Your task to perform on an android device: turn off javascript in the chrome app Image 0: 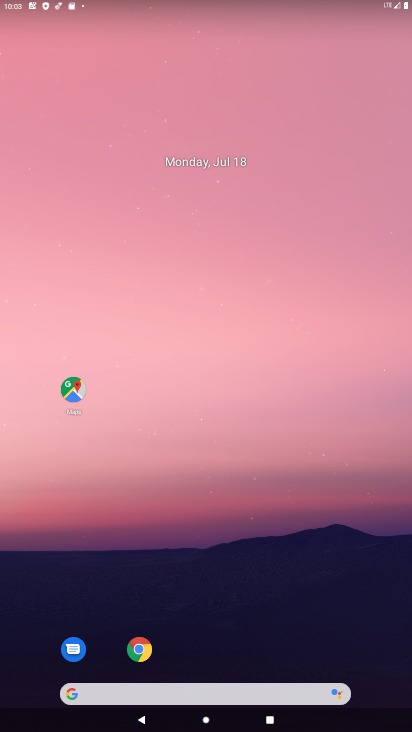
Step 0: click (141, 657)
Your task to perform on an android device: turn off javascript in the chrome app Image 1: 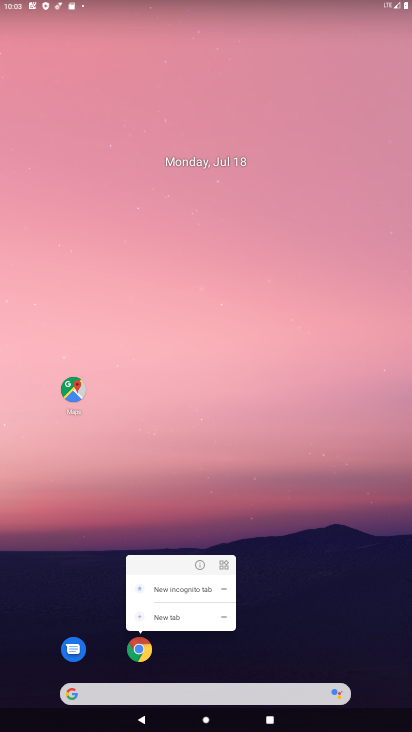
Step 1: click (144, 649)
Your task to perform on an android device: turn off javascript in the chrome app Image 2: 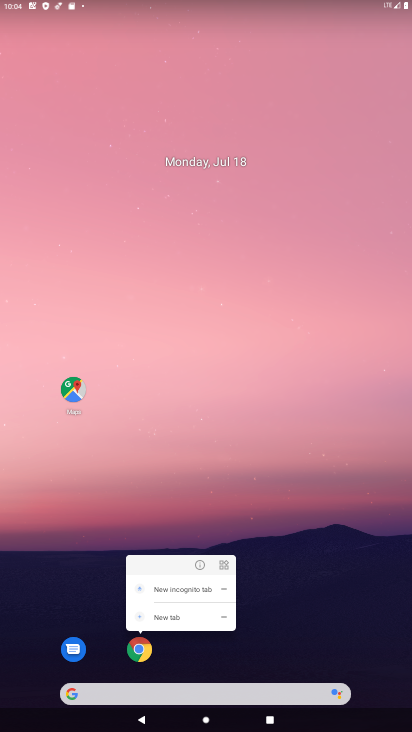
Step 2: click (144, 649)
Your task to perform on an android device: turn off javascript in the chrome app Image 3: 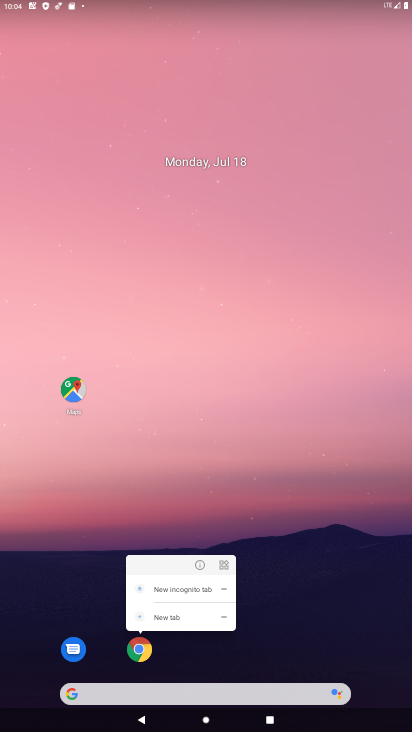
Step 3: click (144, 649)
Your task to perform on an android device: turn off javascript in the chrome app Image 4: 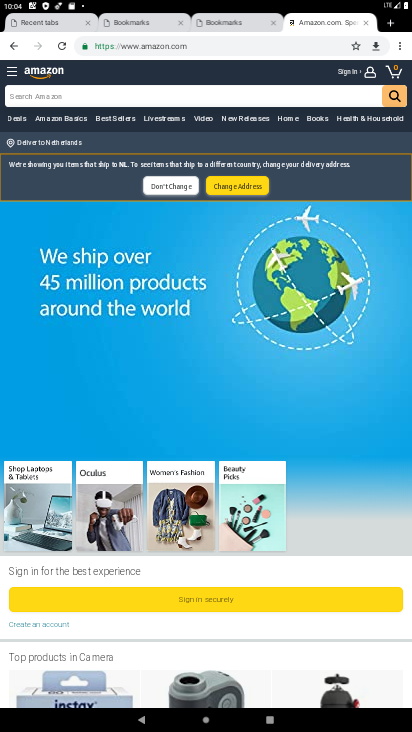
Step 4: click (393, 47)
Your task to perform on an android device: turn off javascript in the chrome app Image 5: 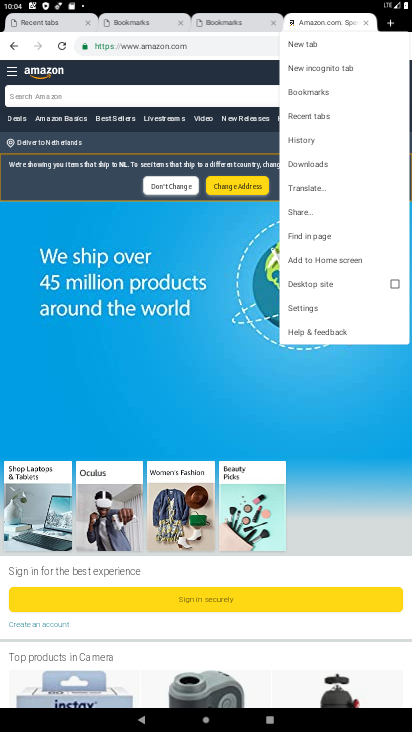
Step 5: click (319, 309)
Your task to perform on an android device: turn off javascript in the chrome app Image 6: 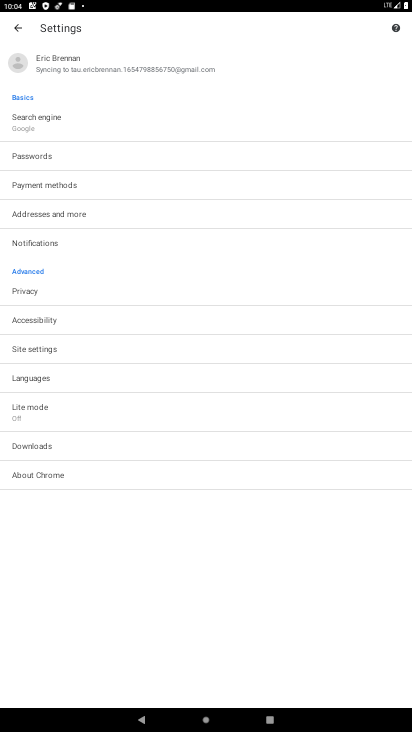
Step 6: click (67, 346)
Your task to perform on an android device: turn off javascript in the chrome app Image 7: 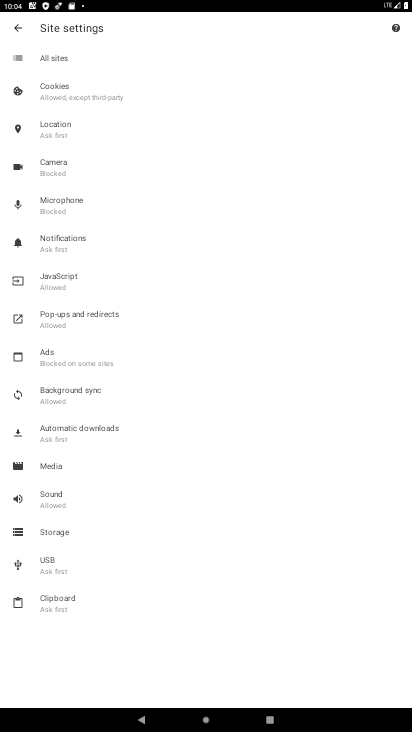
Step 7: click (62, 282)
Your task to perform on an android device: turn off javascript in the chrome app Image 8: 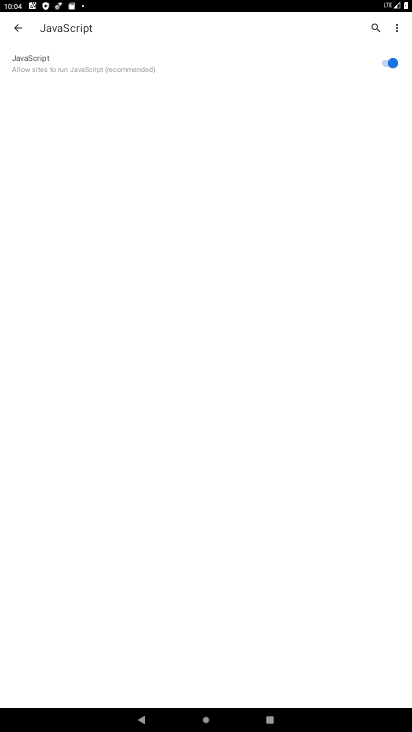
Step 8: click (392, 59)
Your task to perform on an android device: turn off javascript in the chrome app Image 9: 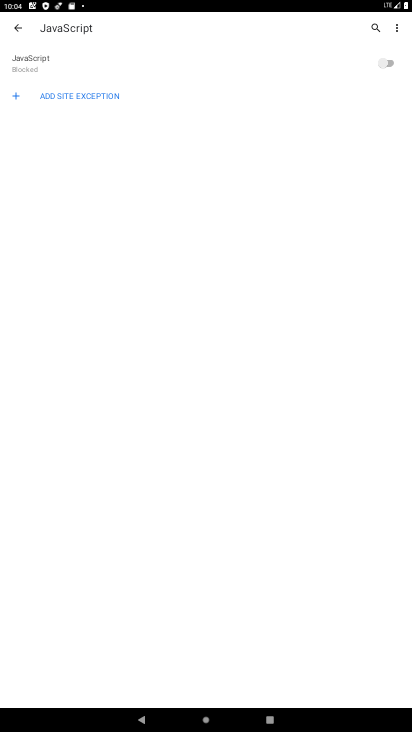
Step 9: task complete